Your task to perform on an android device: Open Yahoo.com Image 0: 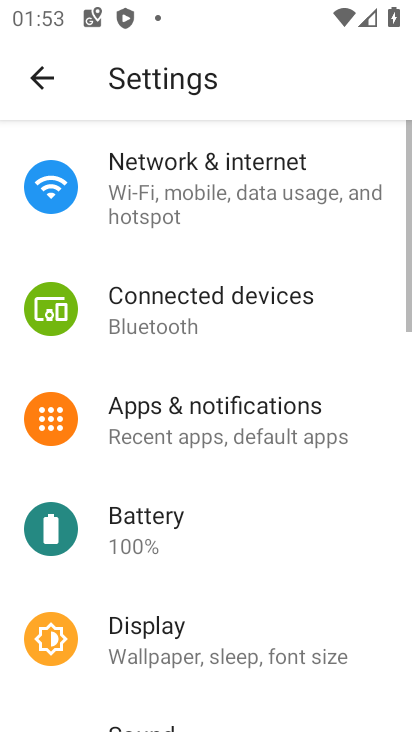
Step 0: press home button
Your task to perform on an android device: Open Yahoo.com Image 1: 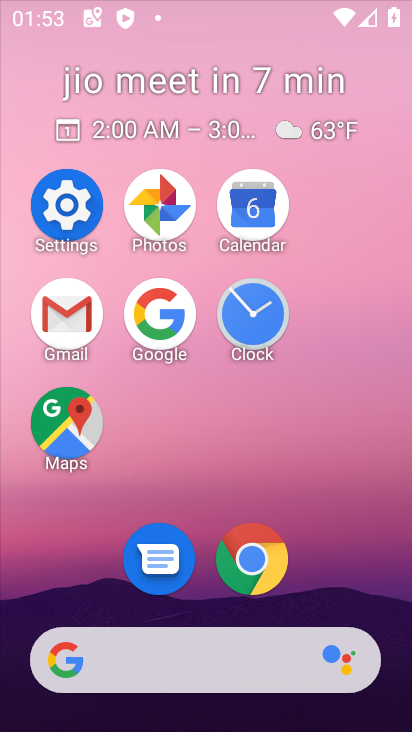
Step 1: click (260, 534)
Your task to perform on an android device: Open Yahoo.com Image 2: 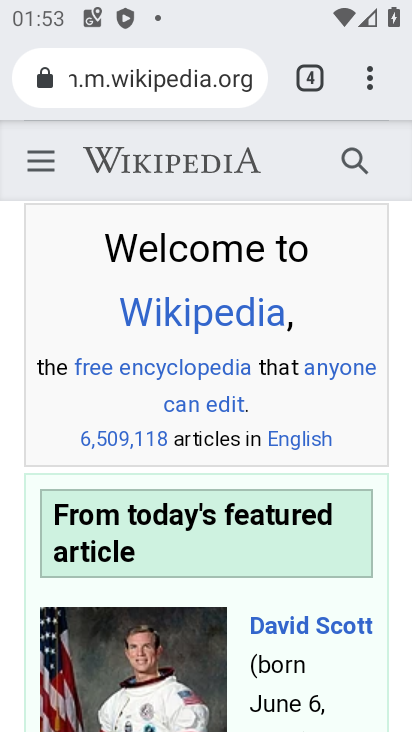
Step 2: click (327, 93)
Your task to perform on an android device: Open Yahoo.com Image 3: 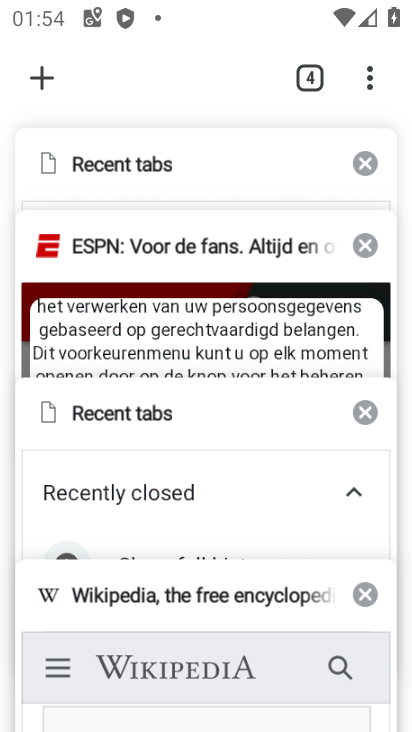
Step 3: click (39, 95)
Your task to perform on an android device: Open Yahoo.com Image 4: 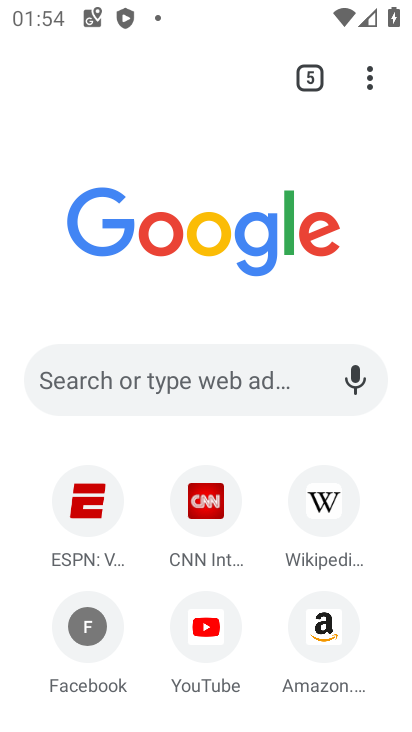
Step 4: click (214, 357)
Your task to perform on an android device: Open Yahoo.com Image 5: 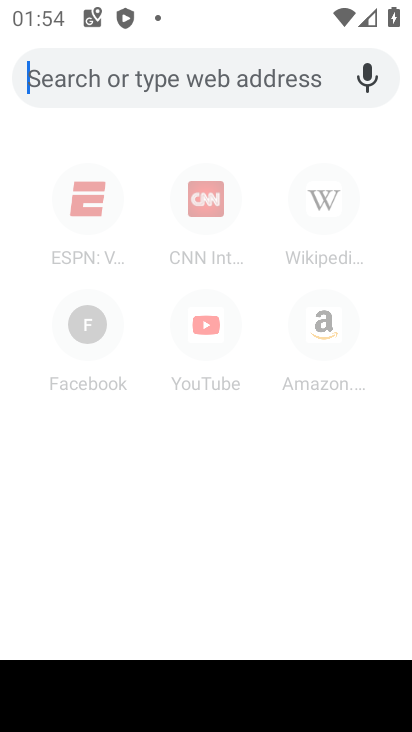
Step 5: type "yahoo"
Your task to perform on an android device: Open Yahoo.com Image 6: 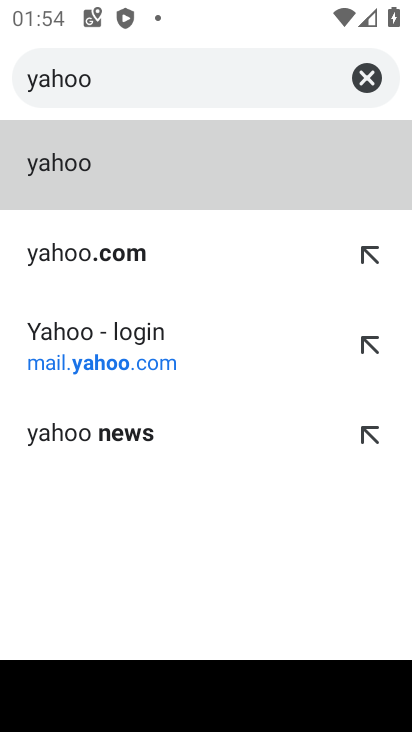
Step 6: click (113, 258)
Your task to perform on an android device: Open Yahoo.com Image 7: 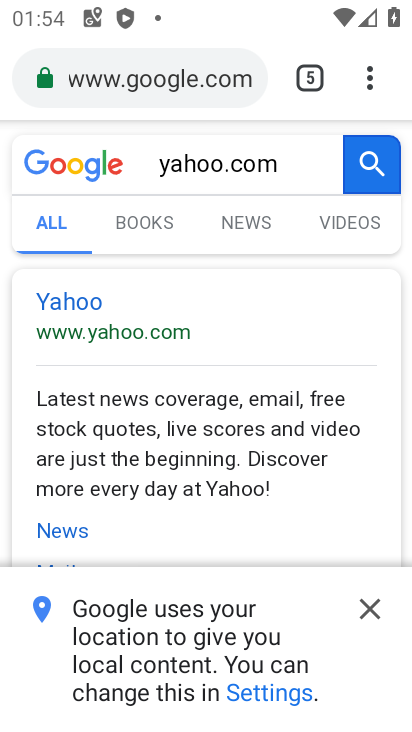
Step 7: click (106, 298)
Your task to perform on an android device: Open Yahoo.com Image 8: 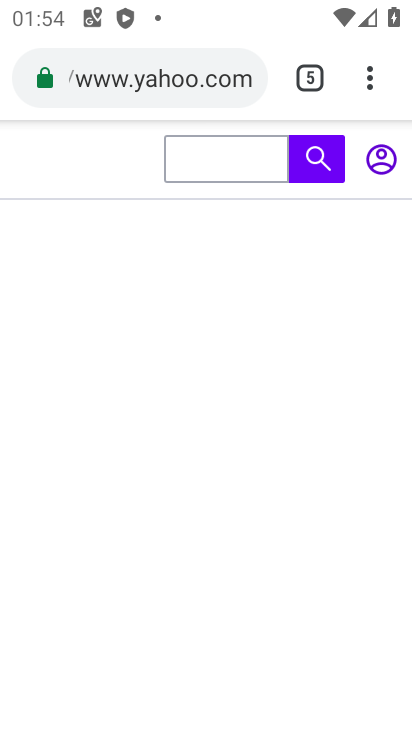
Step 8: task complete